Your task to perform on an android device: Open battery settings Image 0: 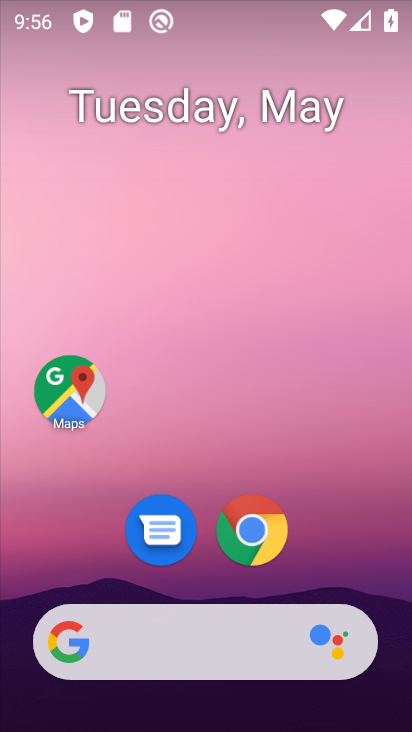
Step 0: drag from (225, 579) to (223, 133)
Your task to perform on an android device: Open battery settings Image 1: 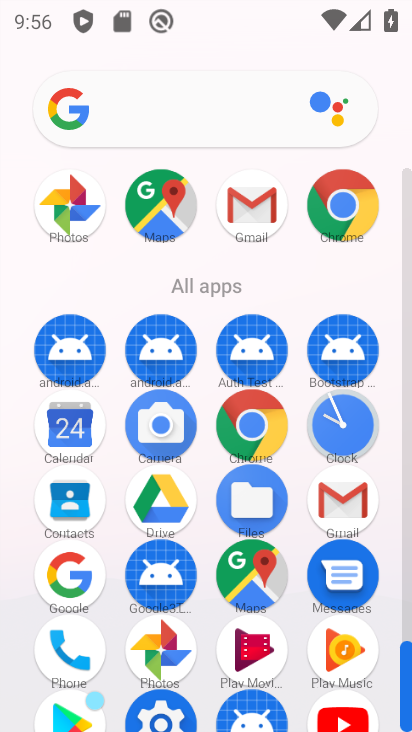
Step 1: click (155, 708)
Your task to perform on an android device: Open battery settings Image 2: 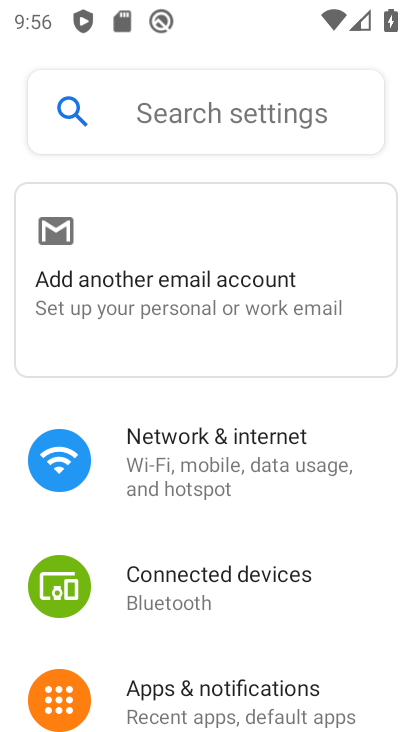
Step 2: drag from (194, 635) to (250, 156)
Your task to perform on an android device: Open battery settings Image 3: 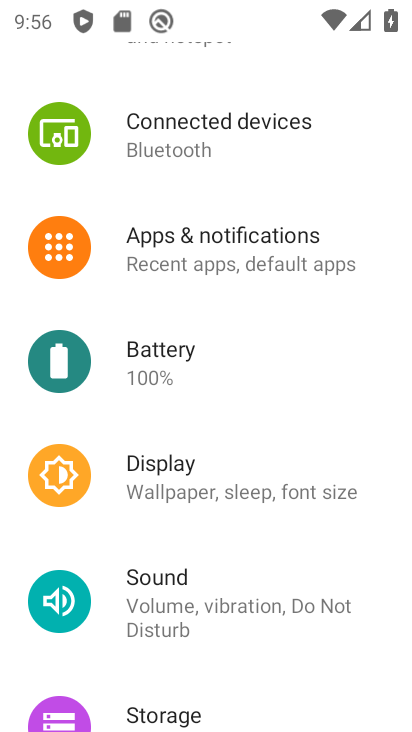
Step 3: click (233, 353)
Your task to perform on an android device: Open battery settings Image 4: 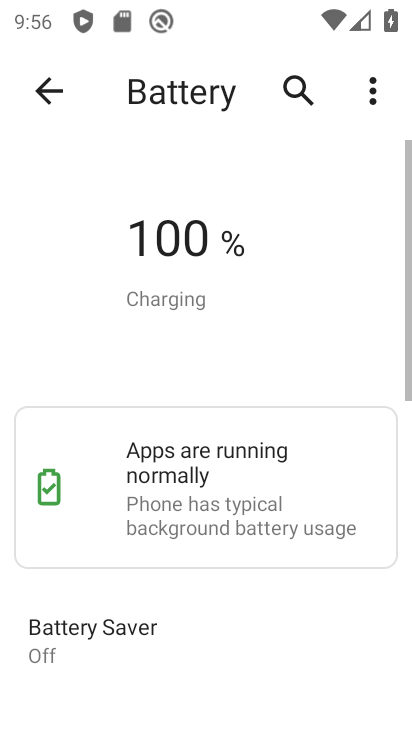
Step 4: task complete